Your task to perform on an android device: empty trash in google photos Image 0: 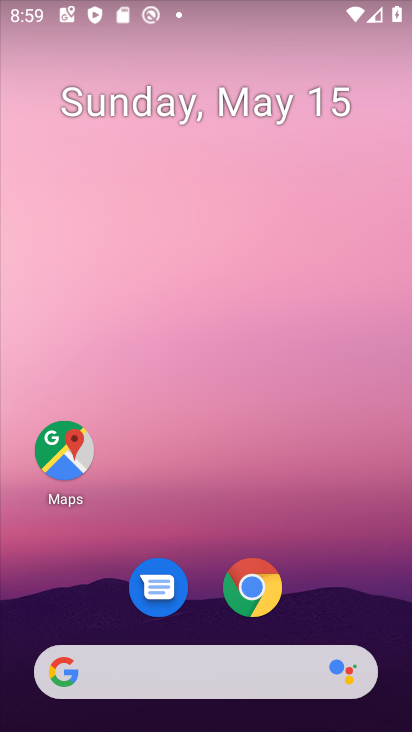
Step 0: drag from (398, 633) to (281, 84)
Your task to perform on an android device: empty trash in google photos Image 1: 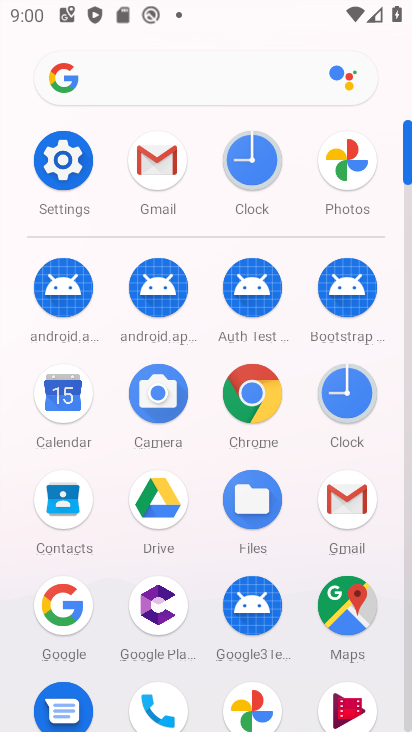
Step 1: click (251, 695)
Your task to perform on an android device: empty trash in google photos Image 2: 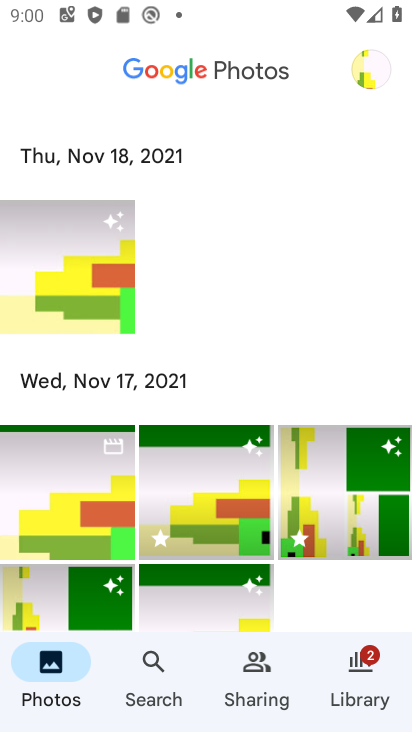
Step 2: click (345, 691)
Your task to perform on an android device: empty trash in google photos Image 3: 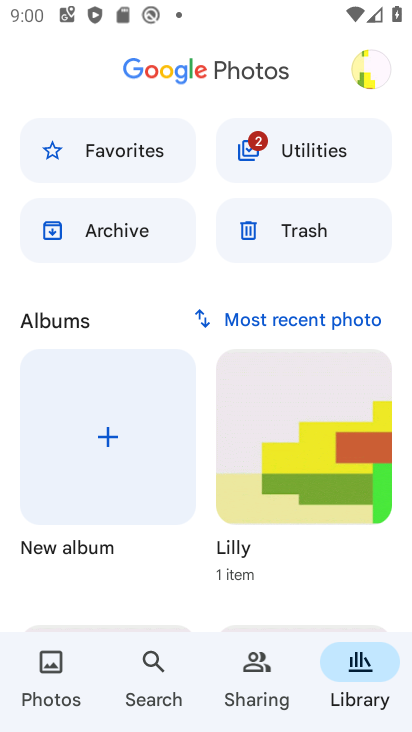
Step 3: click (291, 221)
Your task to perform on an android device: empty trash in google photos Image 4: 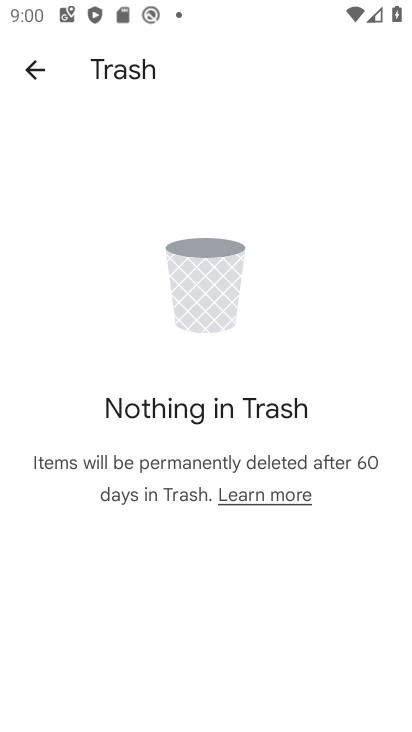
Step 4: task complete